Your task to perform on an android device: empty trash in the gmail app Image 0: 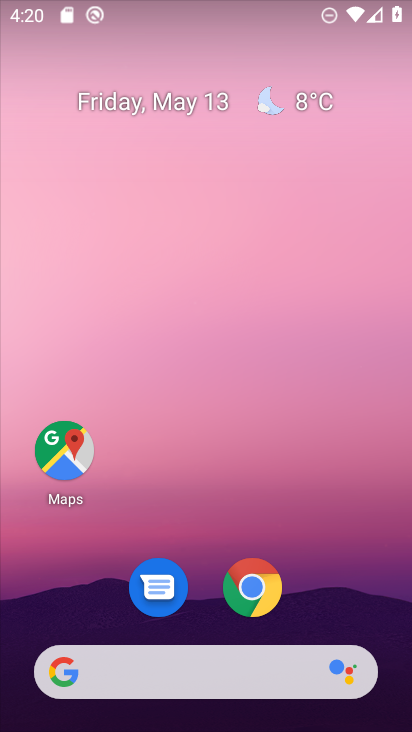
Step 0: drag from (210, 625) to (231, 89)
Your task to perform on an android device: empty trash in the gmail app Image 1: 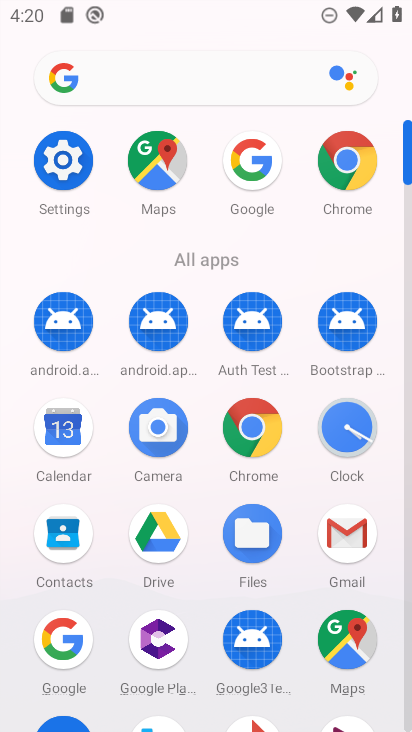
Step 1: click (331, 539)
Your task to perform on an android device: empty trash in the gmail app Image 2: 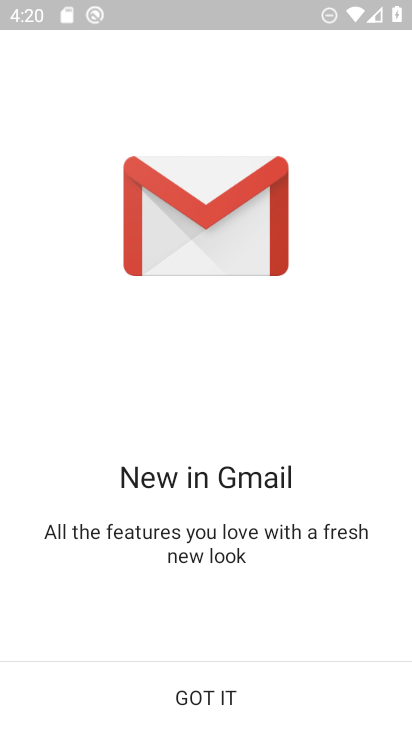
Step 2: click (234, 701)
Your task to perform on an android device: empty trash in the gmail app Image 3: 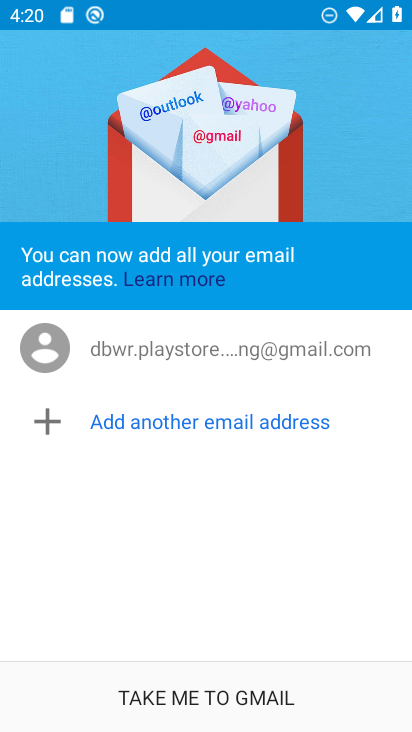
Step 3: click (234, 701)
Your task to perform on an android device: empty trash in the gmail app Image 4: 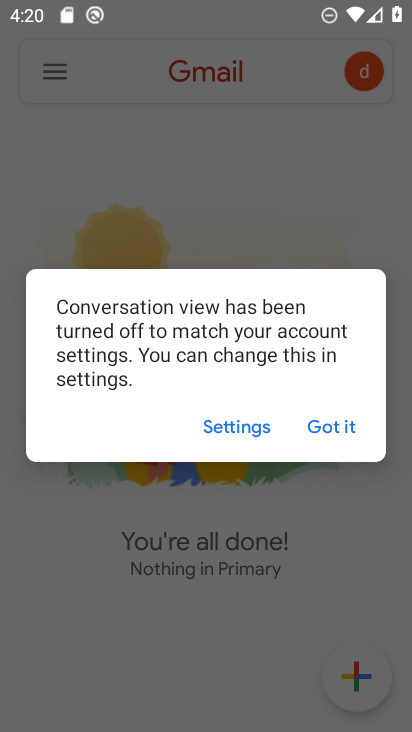
Step 4: click (312, 416)
Your task to perform on an android device: empty trash in the gmail app Image 5: 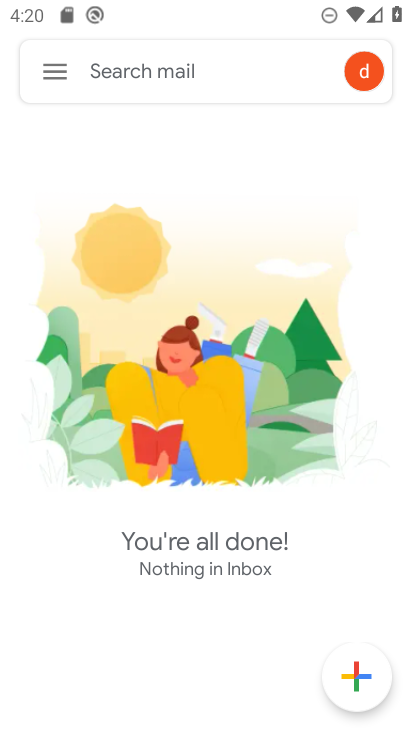
Step 5: click (48, 81)
Your task to perform on an android device: empty trash in the gmail app Image 6: 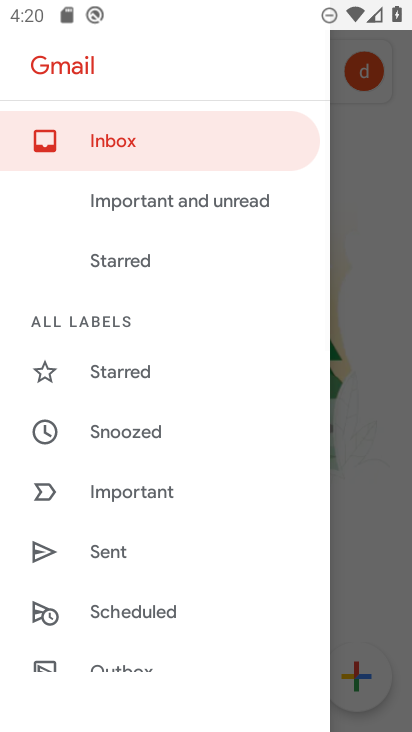
Step 6: drag from (158, 574) to (172, 296)
Your task to perform on an android device: empty trash in the gmail app Image 7: 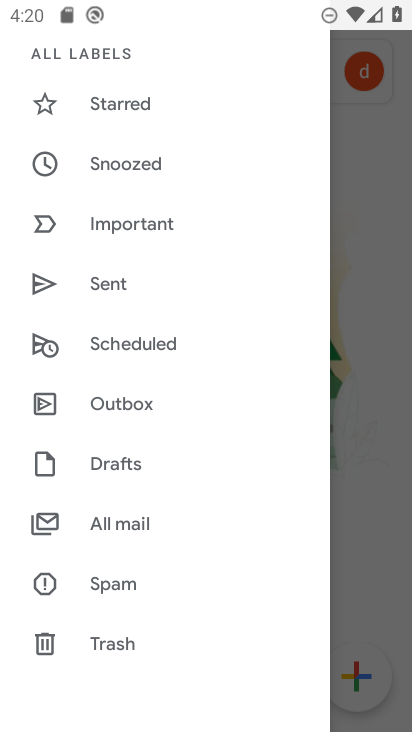
Step 7: click (142, 638)
Your task to perform on an android device: empty trash in the gmail app Image 8: 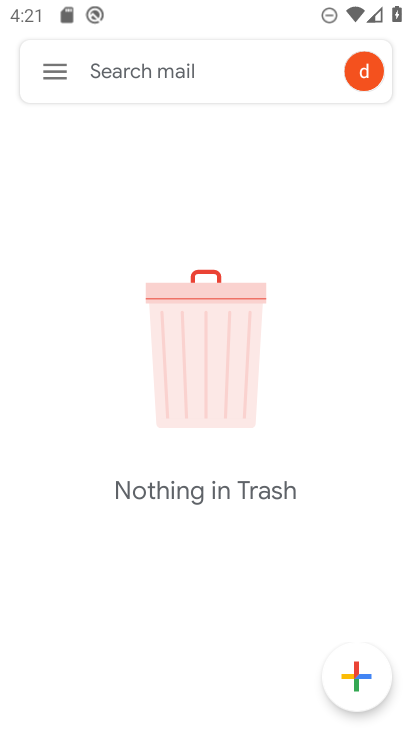
Step 8: task complete